Your task to perform on an android device: Go to Yahoo.com Image 0: 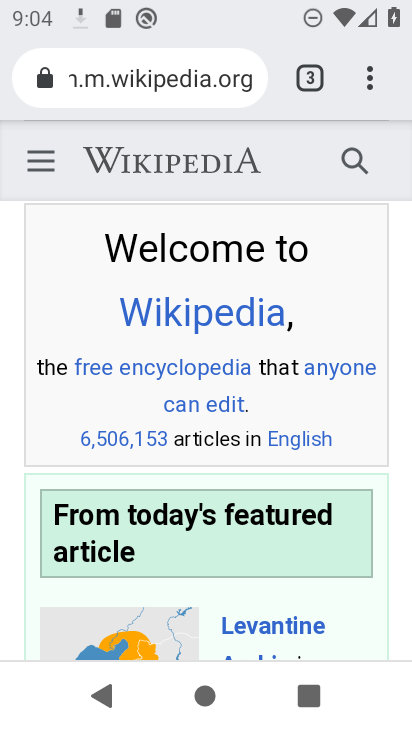
Step 0: click (411, 133)
Your task to perform on an android device: Go to Yahoo.com Image 1: 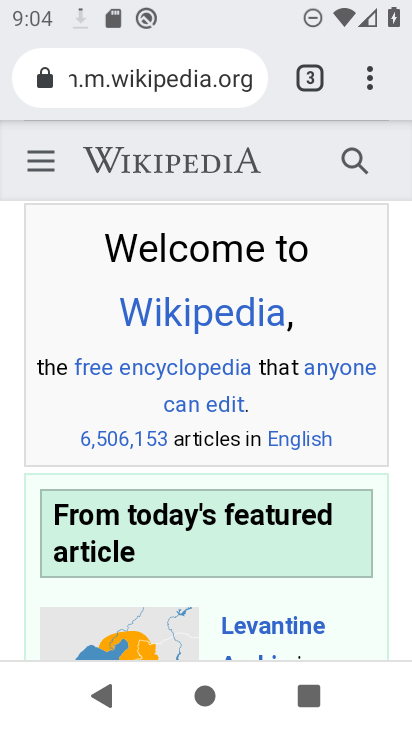
Step 1: click (315, 64)
Your task to perform on an android device: Go to Yahoo.com Image 2: 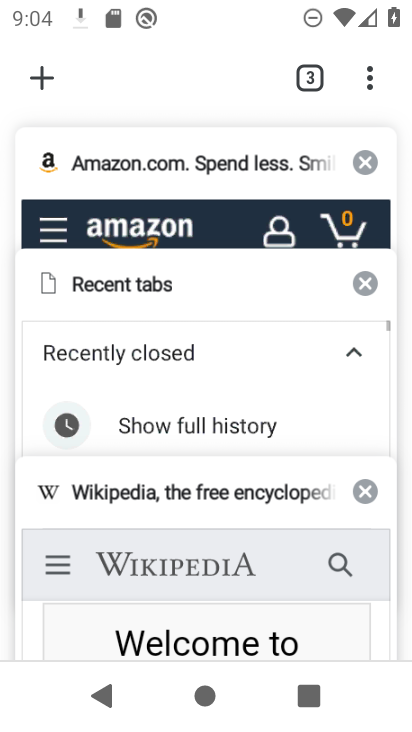
Step 2: click (31, 66)
Your task to perform on an android device: Go to Yahoo.com Image 3: 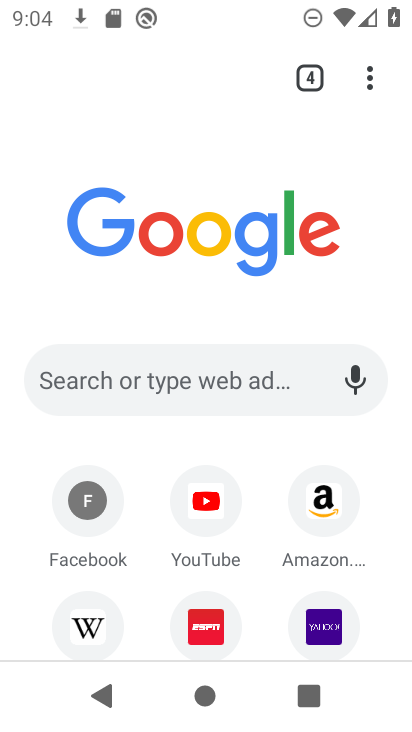
Step 3: click (313, 640)
Your task to perform on an android device: Go to Yahoo.com Image 4: 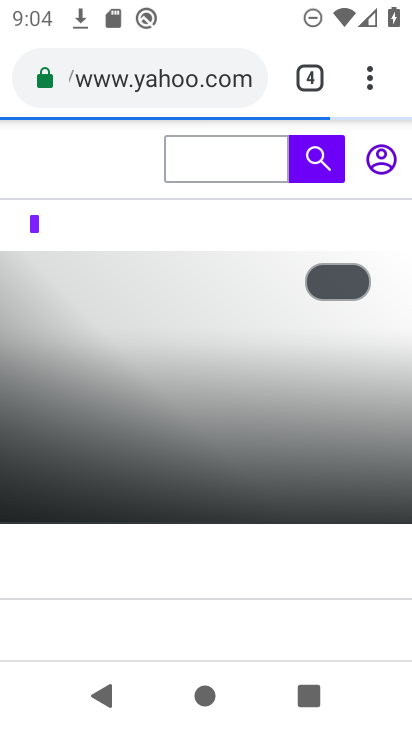
Step 4: task complete